Your task to perform on an android device: uninstall "Speedtest by Ookla" Image 0: 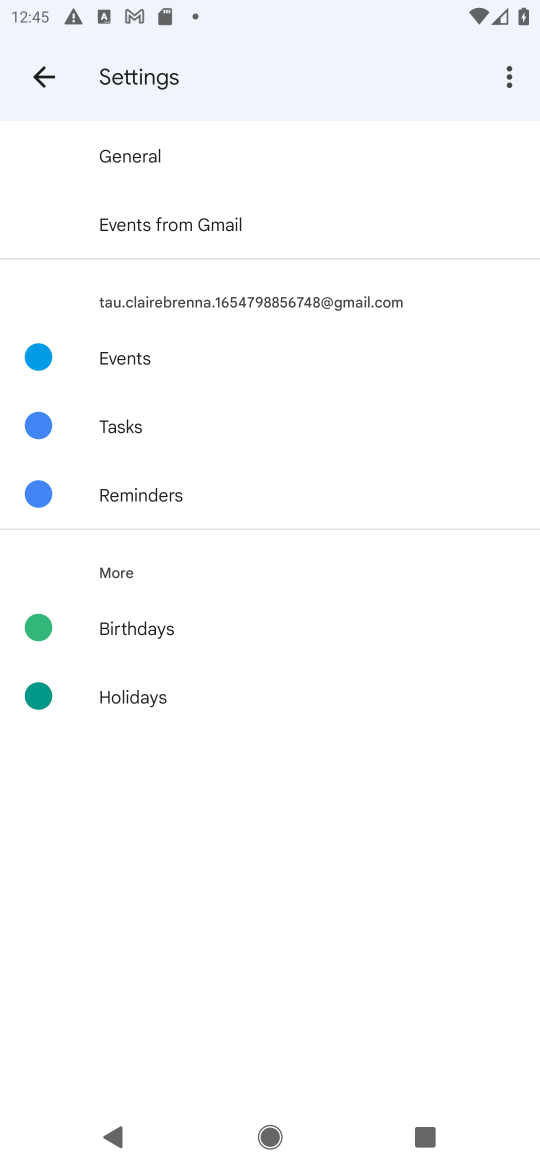
Step 0: press home button
Your task to perform on an android device: uninstall "Speedtest by Ookla" Image 1: 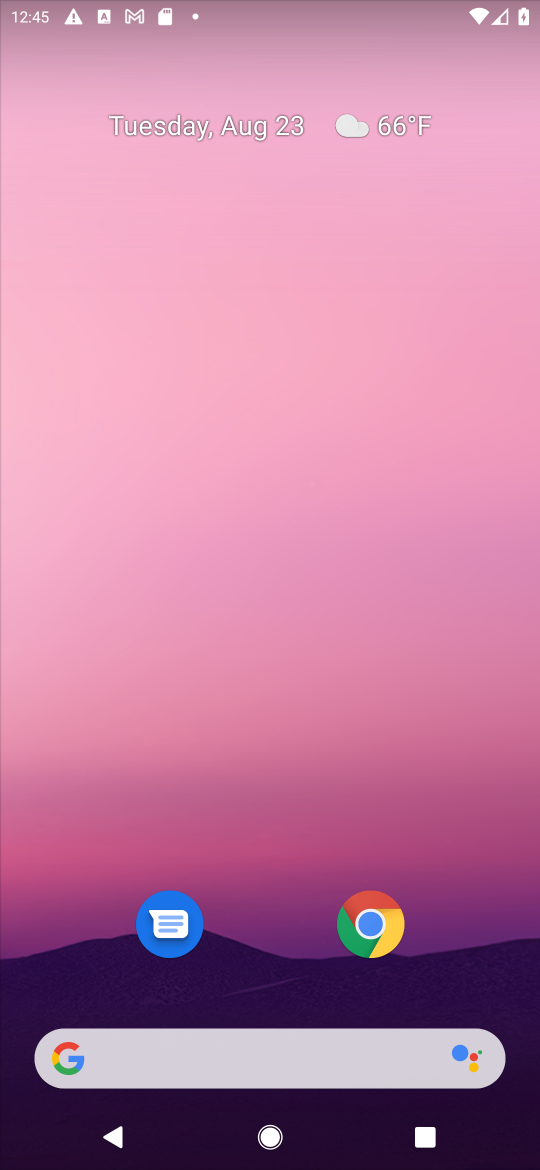
Step 1: drag from (487, 640) to (513, 119)
Your task to perform on an android device: uninstall "Speedtest by Ookla" Image 2: 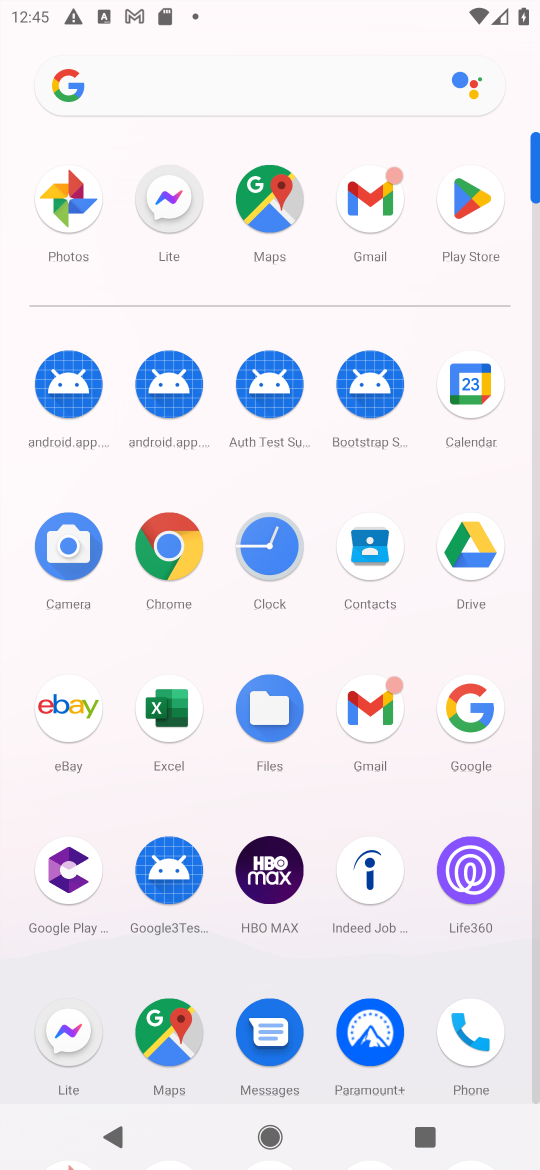
Step 2: click (470, 185)
Your task to perform on an android device: uninstall "Speedtest by Ookla" Image 3: 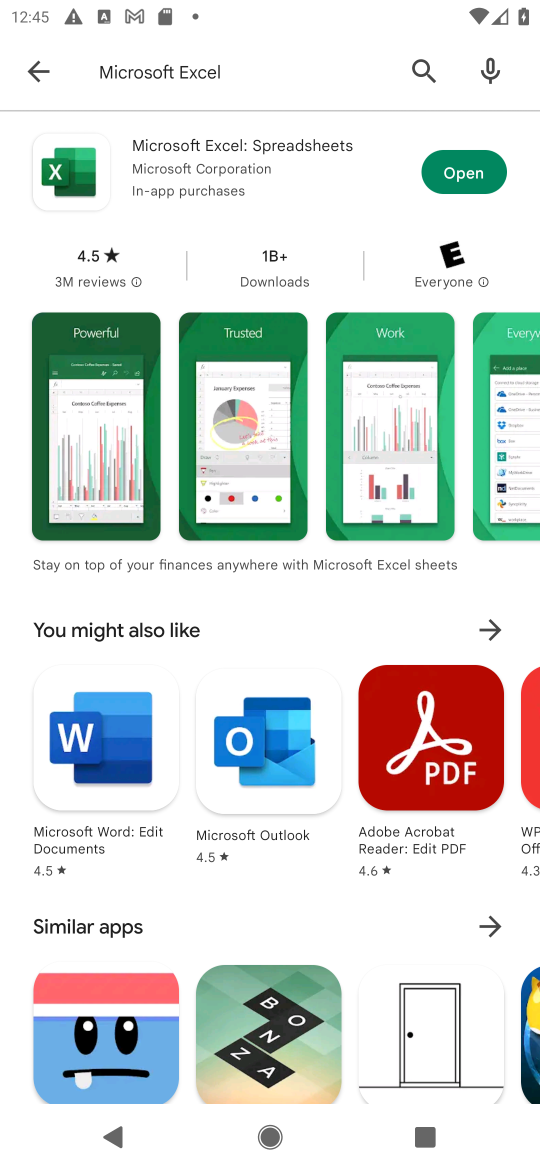
Step 3: press back button
Your task to perform on an android device: uninstall "Speedtest by Ookla" Image 4: 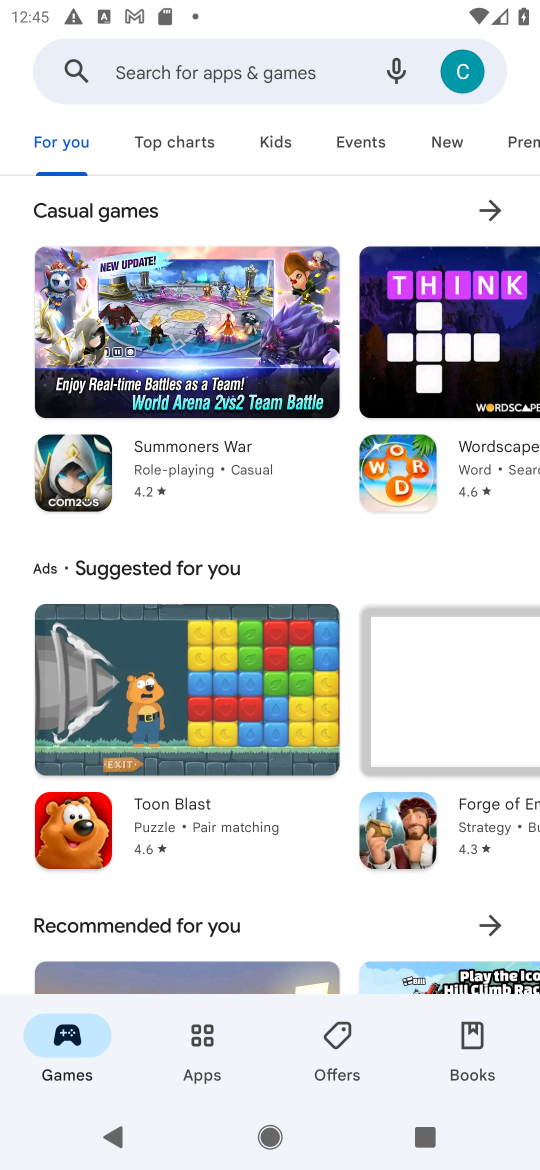
Step 4: click (255, 66)
Your task to perform on an android device: uninstall "Speedtest by Ookla" Image 5: 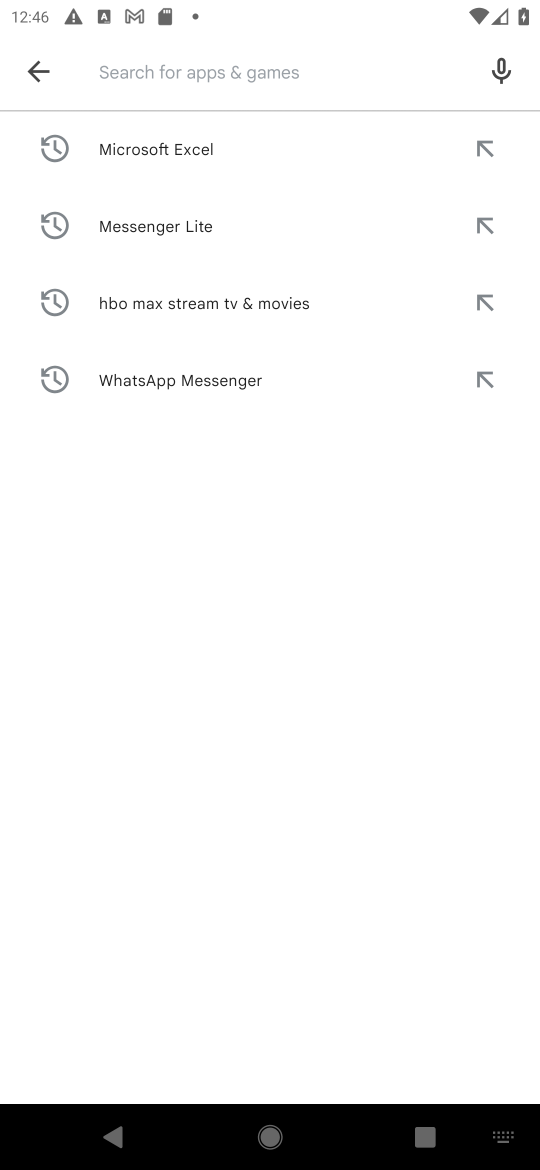
Step 5: press enter
Your task to perform on an android device: uninstall "Speedtest by Ookla" Image 6: 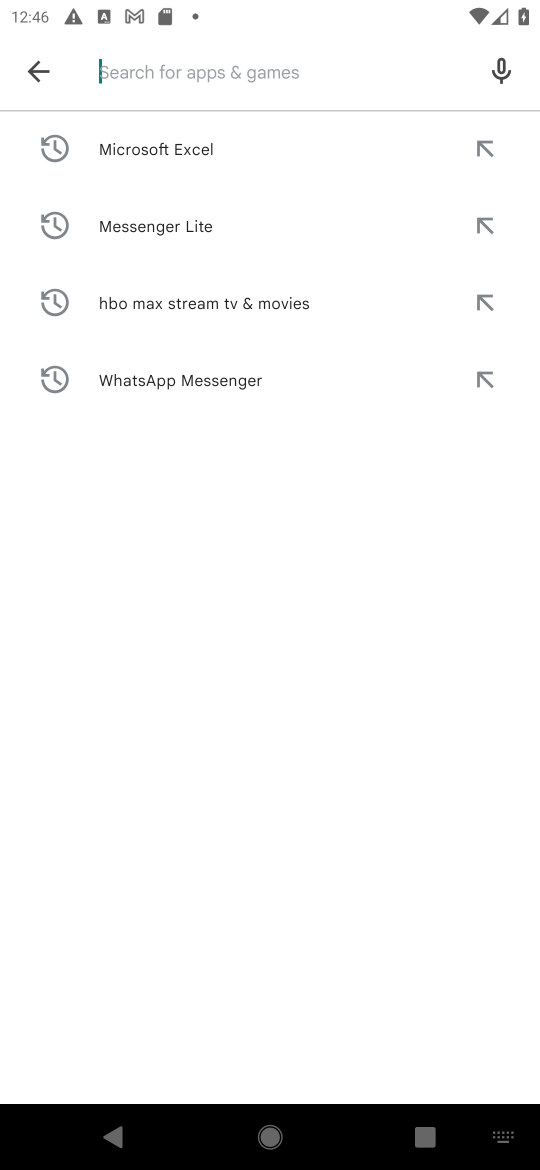
Step 6: type "Speedtest by Ookla"
Your task to perform on an android device: uninstall "Speedtest by Ookla" Image 7: 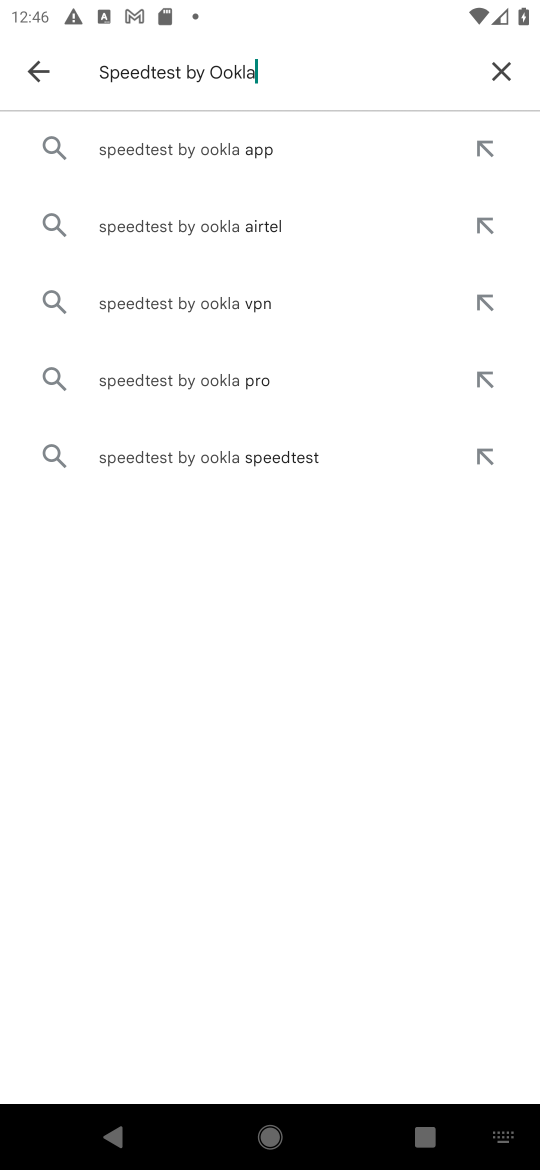
Step 7: click (268, 144)
Your task to perform on an android device: uninstall "Speedtest by Ookla" Image 8: 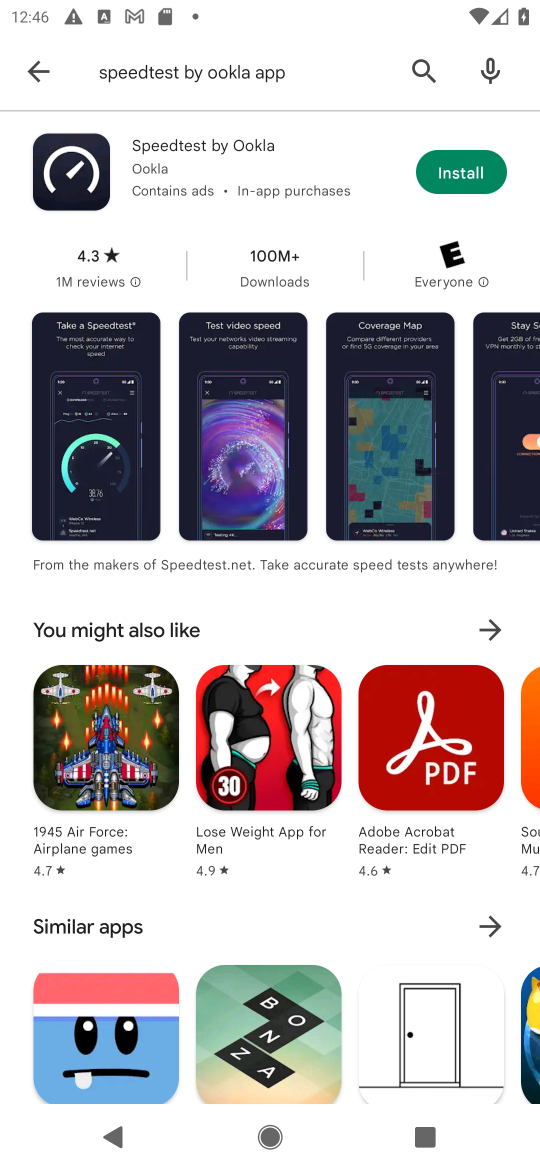
Step 8: task complete